Your task to perform on an android device: When is my next appointment? Image 0: 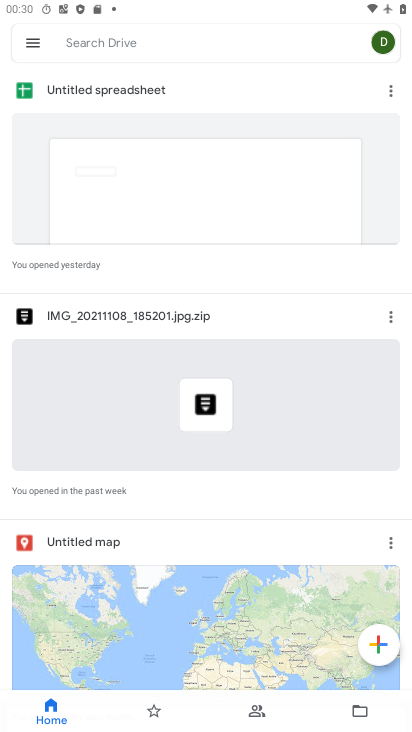
Step 0: press home button
Your task to perform on an android device: When is my next appointment? Image 1: 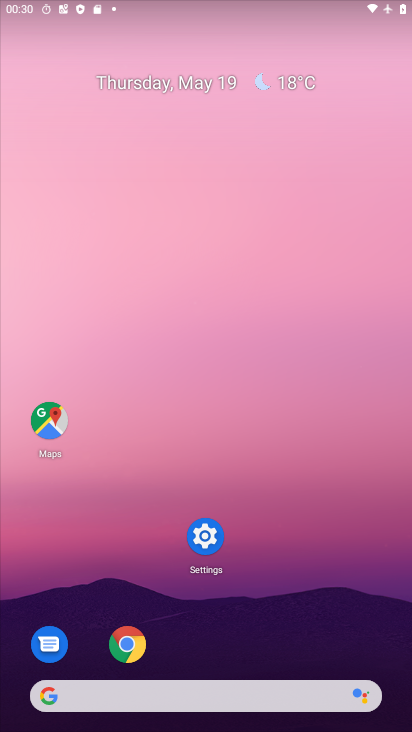
Step 1: drag from (318, 650) to (331, 199)
Your task to perform on an android device: When is my next appointment? Image 2: 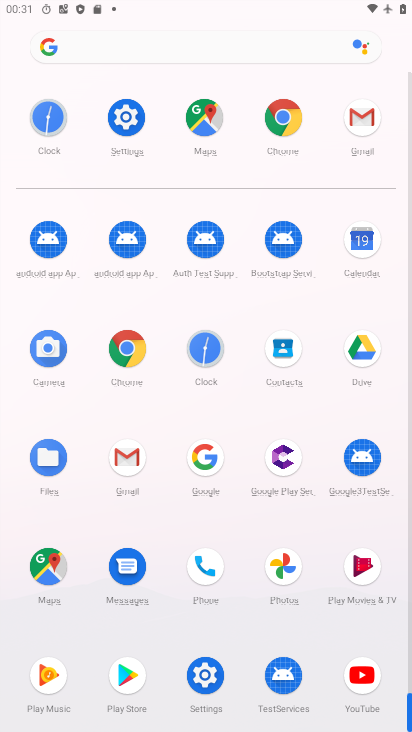
Step 2: click (363, 247)
Your task to perform on an android device: When is my next appointment? Image 3: 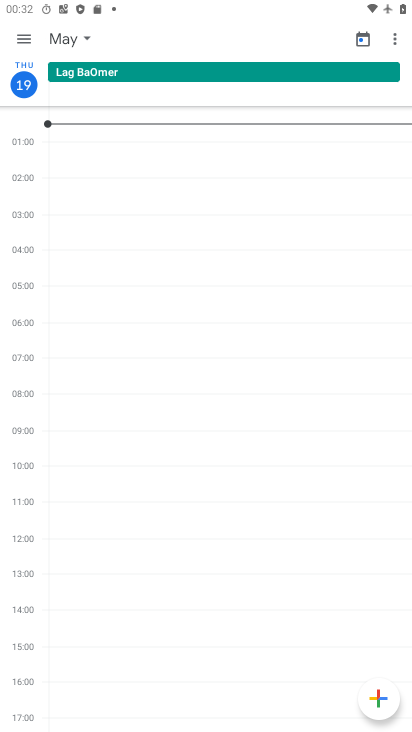
Step 3: click (39, 78)
Your task to perform on an android device: When is my next appointment? Image 4: 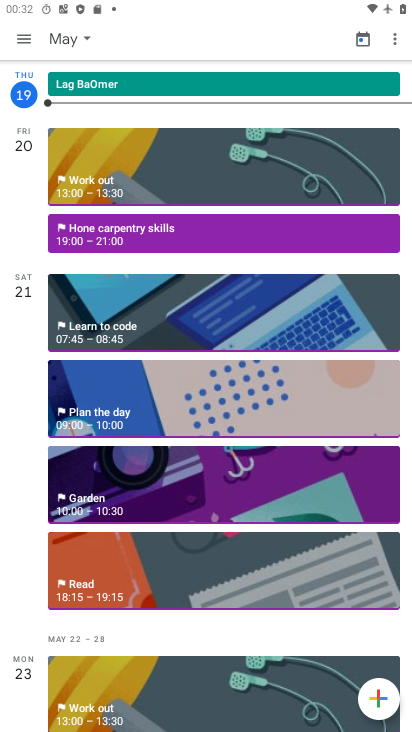
Step 4: click (30, 153)
Your task to perform on an android device: When is my next appointment? Image 5: 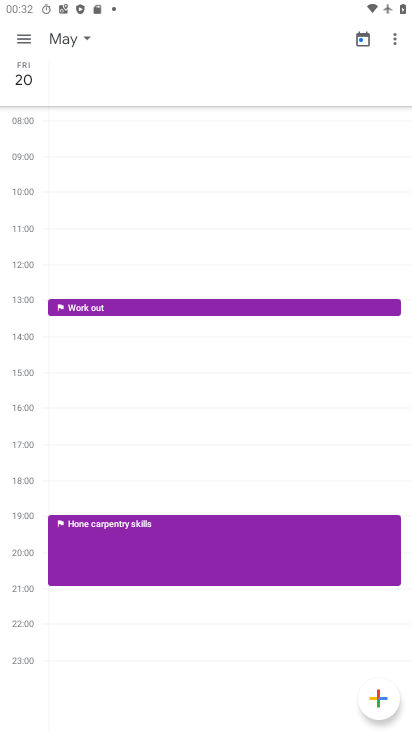
Step 5: task complete